Your task to perform on an android device: check data usage Image 0: 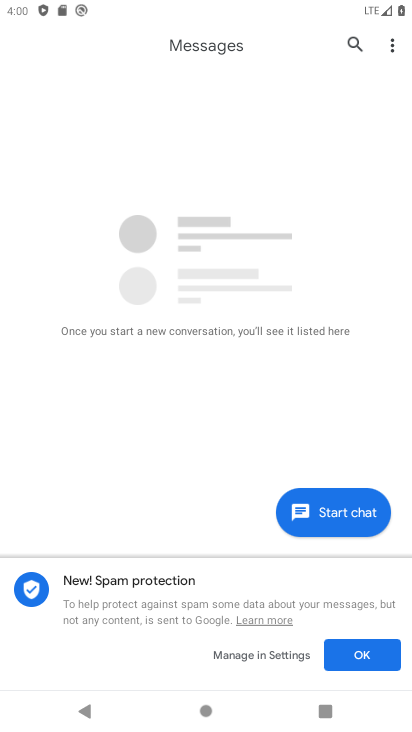
Step 0: click (360, 642)
Your task to perform on an android device: check data usage Image 1: 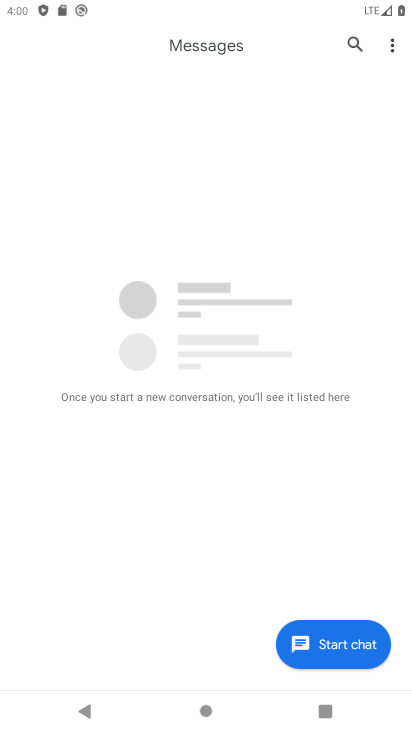
Step 1: press back button
Your task to perform on an android device: check data usage Image 2: 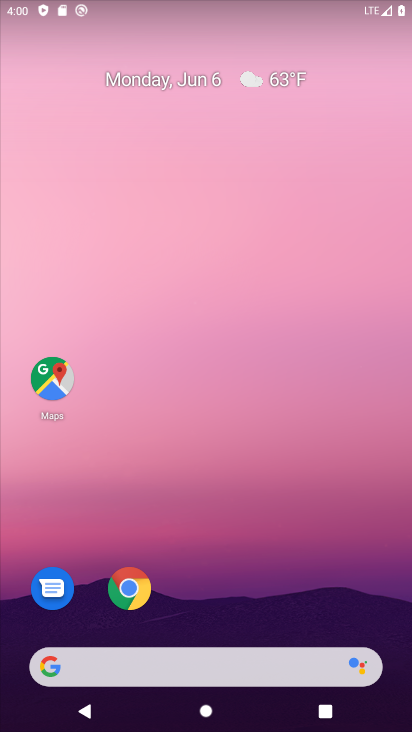
Step 2: drag from (196, 279) to (172, 130)
Your task to perform on an android device: check data usage Image 3: 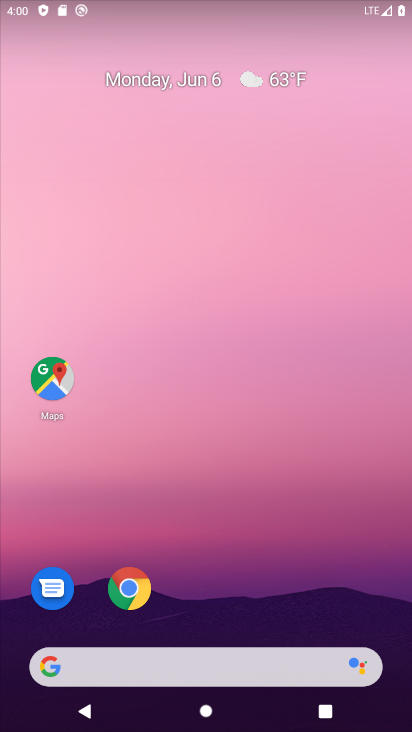
Step 3: drag from (254, 594) to (190, 221)
Your task to perform on an android device: check data usage Image 4: 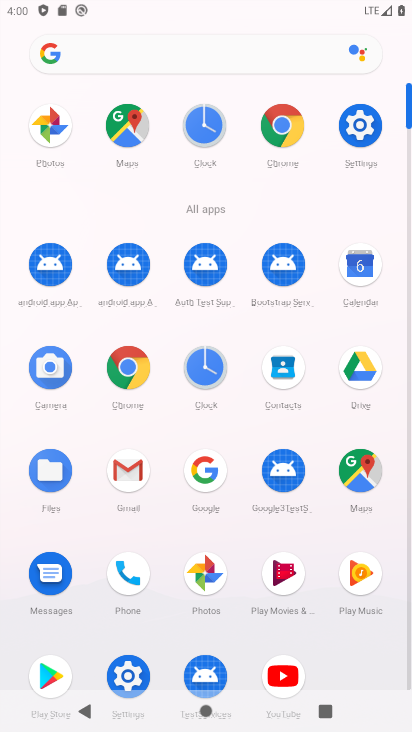
Step 4: click (359, 119)
Your task to perform on an android device: check data usage Image 5: 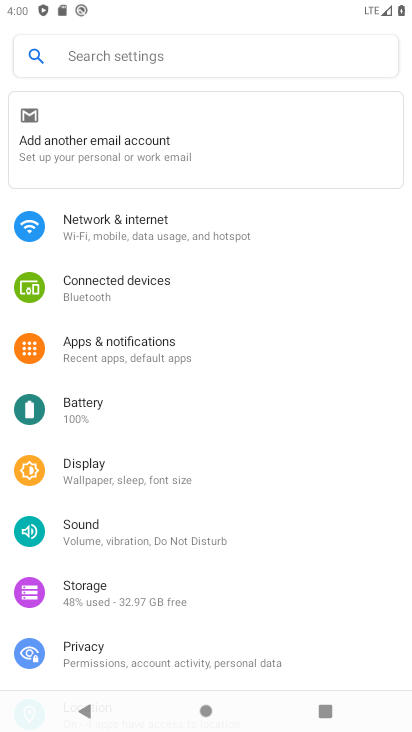
Step 5: click (118, 234)
Your task to perform on an android device: check data usage Image 6: 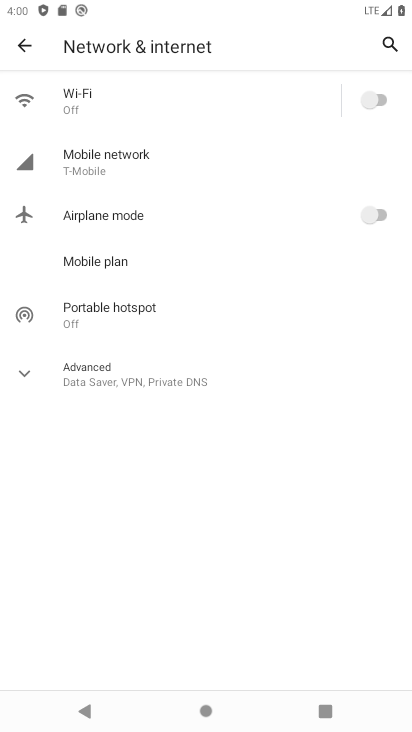
Step 6: click (90, 161)
Your task to perform on an android device: check data usage Image 7: 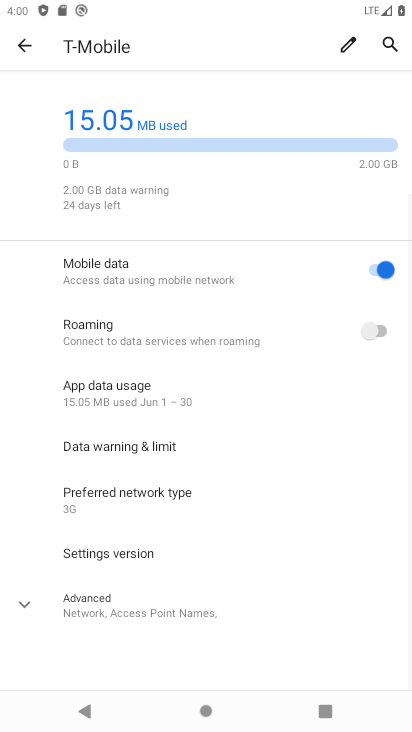
Step 7: click (20, 39)
Your task to perform on an android device: check data usage Image 8: 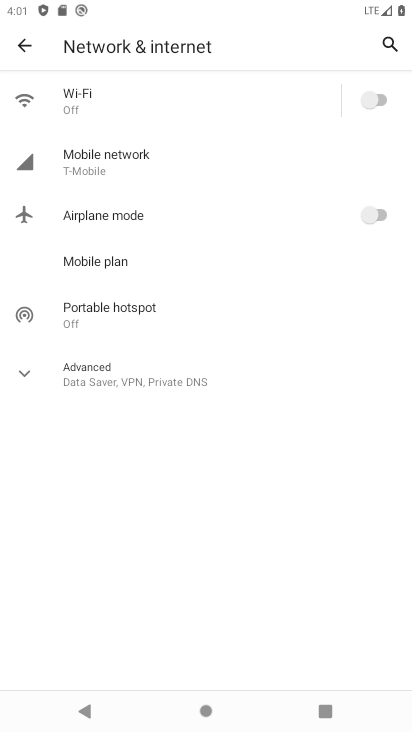
Step 8: task complete